Your task to perform on an android device: Go to display settings Image 0: 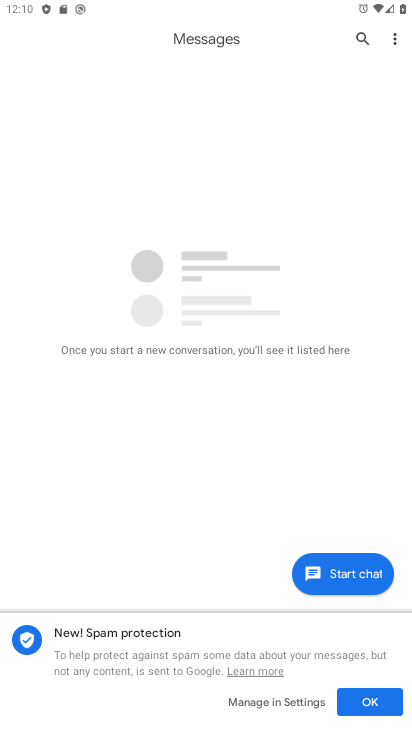
Step 0: press home button
Your task to perform on an android device: Go to display settings Image 1: 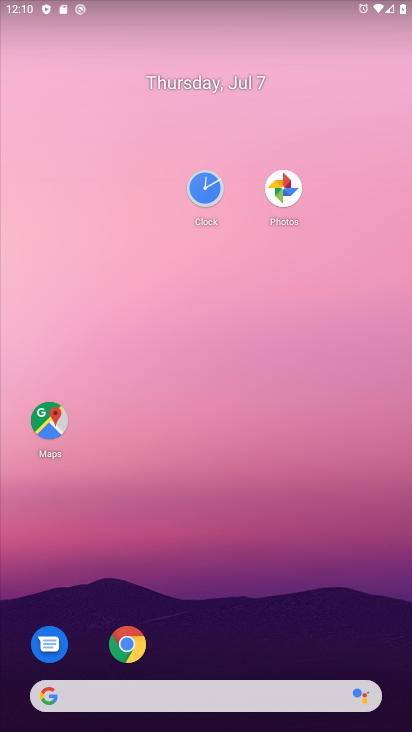
Step 1: drag from (241, 613) to (270, 88)
Your task to perform on an android device: Go to display settings Image 2: 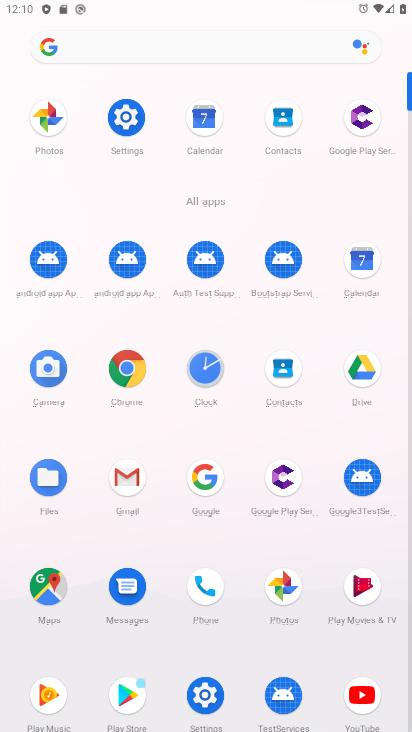
Step 2: drag from (122, 117) to (51, 301)
Your task to perform on an android device: Go to display settings Image 3: 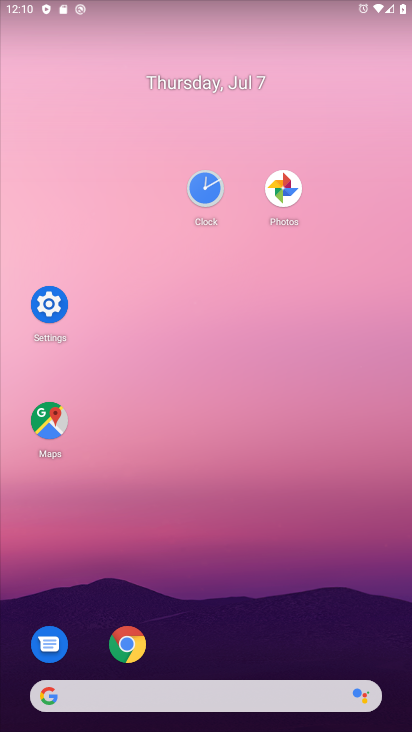
Step 3: click (46, 305)
Your task to perform on an android device: Go to display settings Image 4: 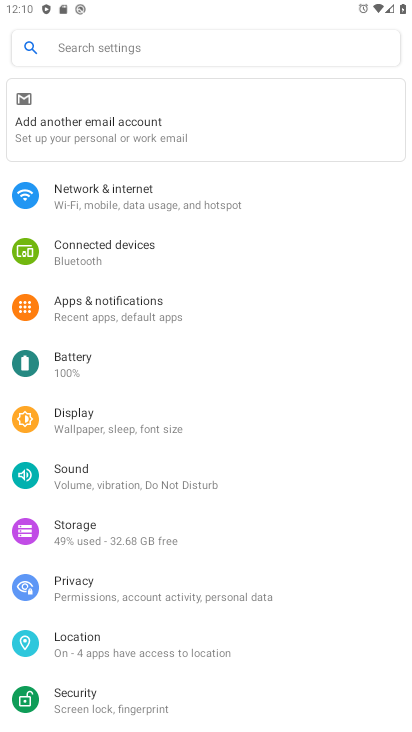
Step 4: click (108, 424)
Your task to perform on an android device: Go to display settings Image 5: 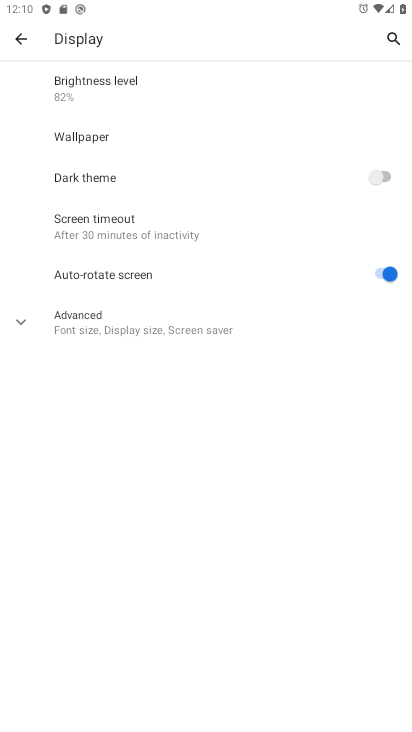
Step 5: task complete